Your task to perform on an android device: Open the phone app and click the voicemail tab. Image 0: 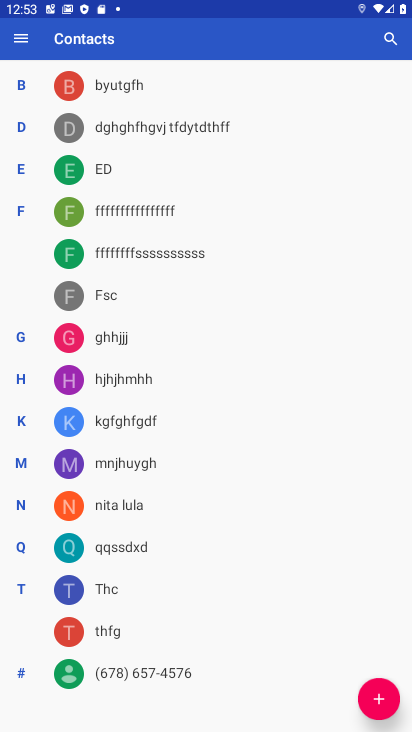
Step 0: press home button
Your task to perform on an android device: Open the phone app and click the voicemail tab. Image 1: 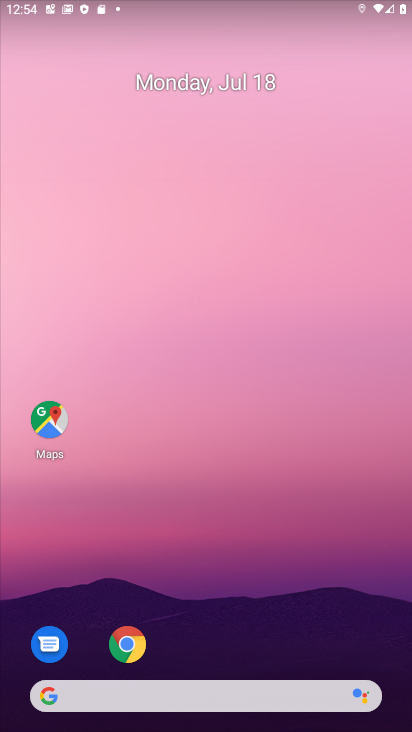
Step 1: drag from (254, 617) to (264, 9)
Your task to perform on an android device: Open the phone app and click the voicemail tab. Image 2: 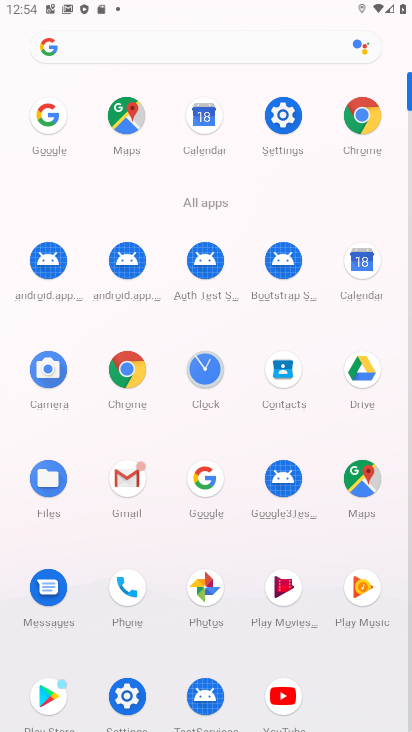
Step 2: click (134, 576)
Your task to perform on an android device: Open the phone app and click the voicemail tab. Image 3: 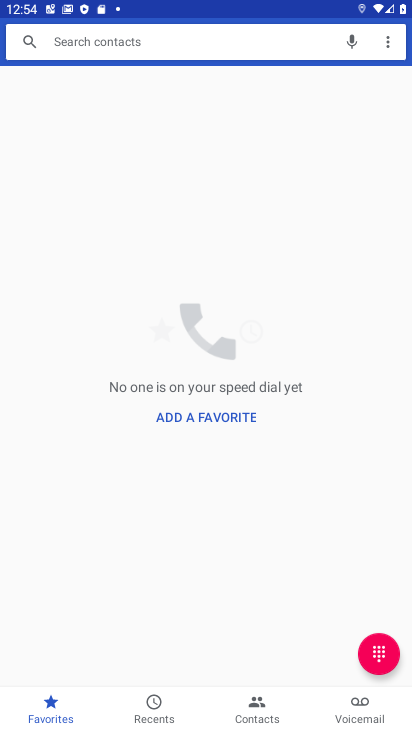
Step 3: click (365, 701)
Your task to perform on an android device: Open the phone app and click the voicemail tab. Image 4: 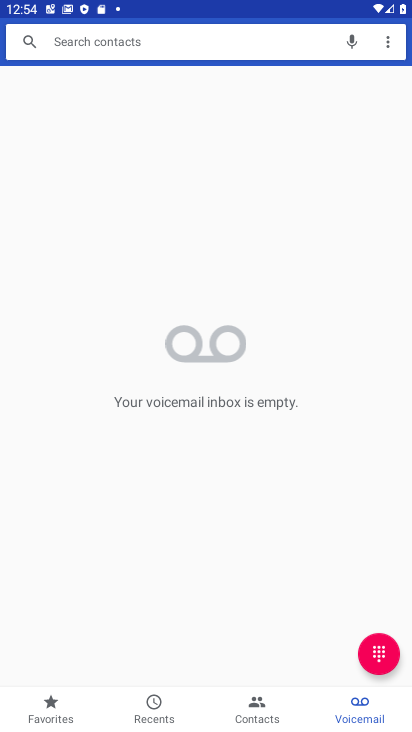
Step 4: task complete